Your task to perform on an android device: turn on wifi Image 0: 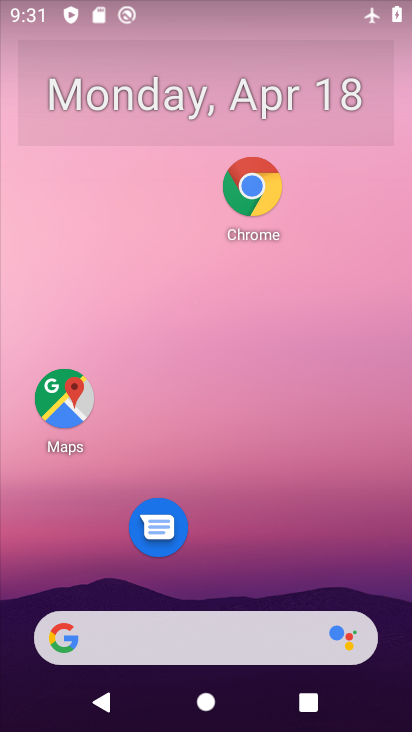
Step 0: drag from (244, 503) to (250, 56)
Your task to perform on an android device: turn on wifi Image 1: 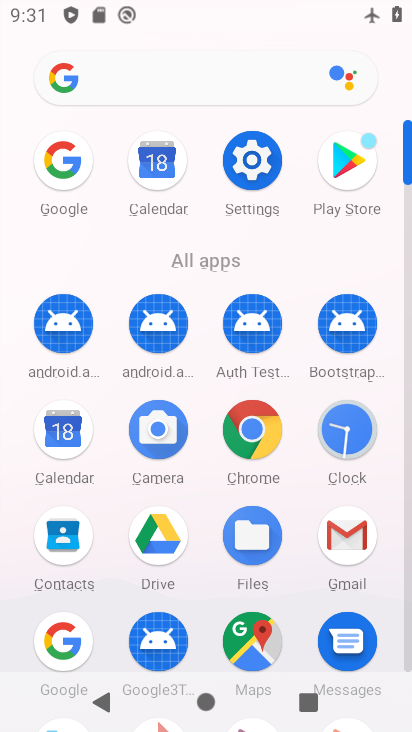
Step 1: click (249, 165)
Your task to perform on an android device: turn on wifi Image 2: 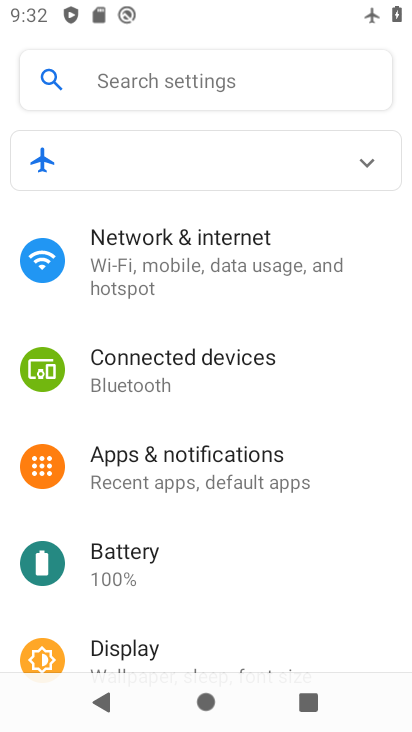
Step 2: click (243, 269)
Your task to perform on an android device: turn on wifi Image 3: 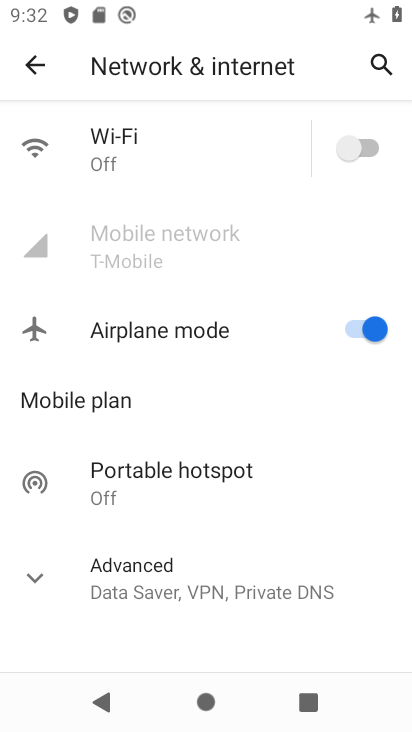
Step 3: click (370, 148)
Your task to perform on an android device: turn on wifi Image 4: 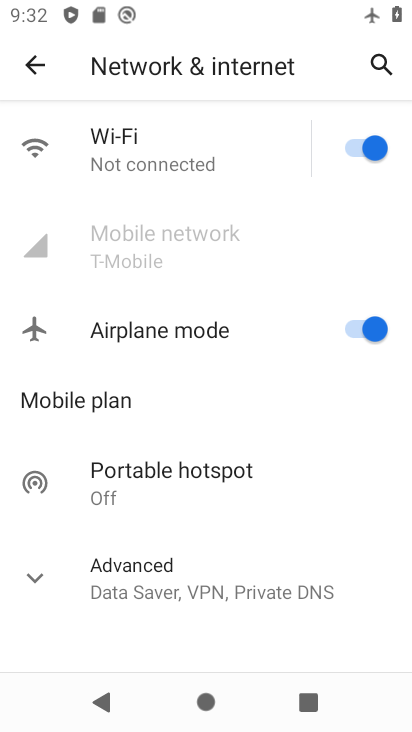
Step 4: task complete